Your task to perform on an android device: manage bookmarks in the chrome app Image 0: 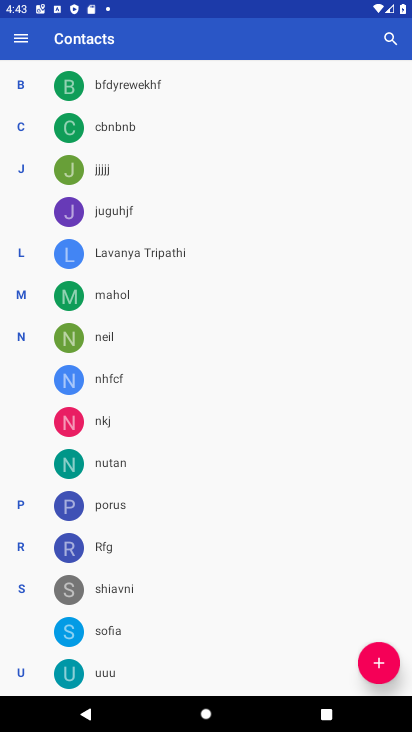
Step 0: press home button
Your task to perform on an android device: manage bookmarks in the chrome app Image 1: 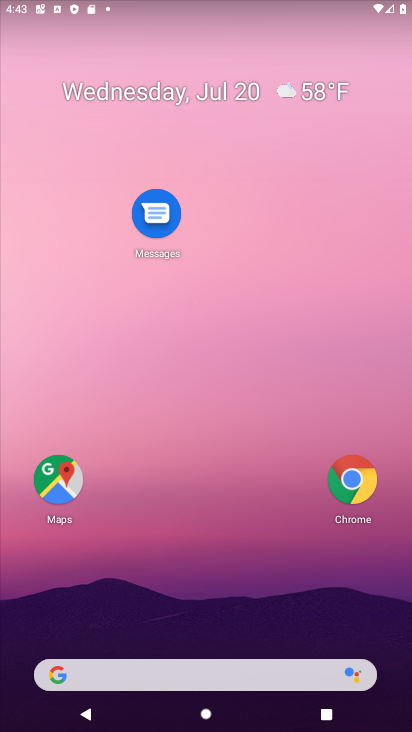
Step 1: click (353, 479)
Your task to perform on an android device: manage bookmarks in the chrome app Image 2: 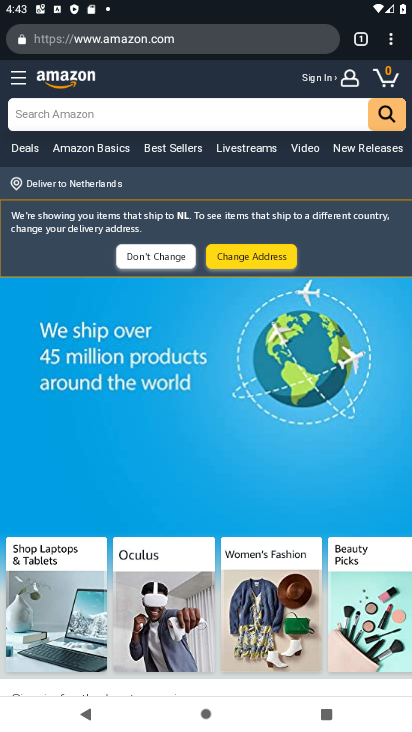
Step 2: click (389, 43)
Your task to perform on an android device: manage bookmarks in the chrome app Image 3: 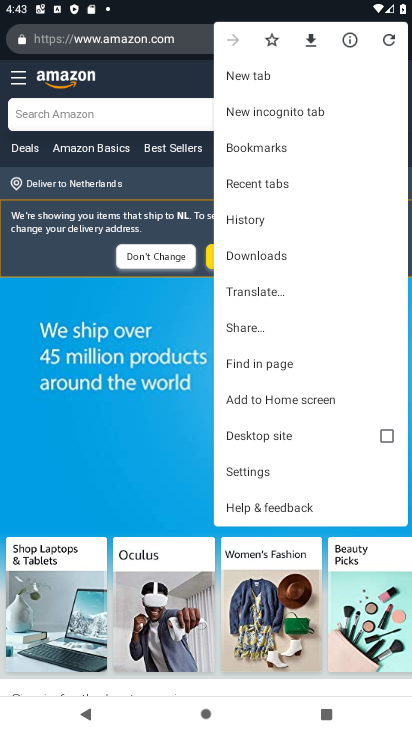
Step 3: click (242, 476)
Your task to perform on an android device: manage bookmarks in the chrome app Image 4: 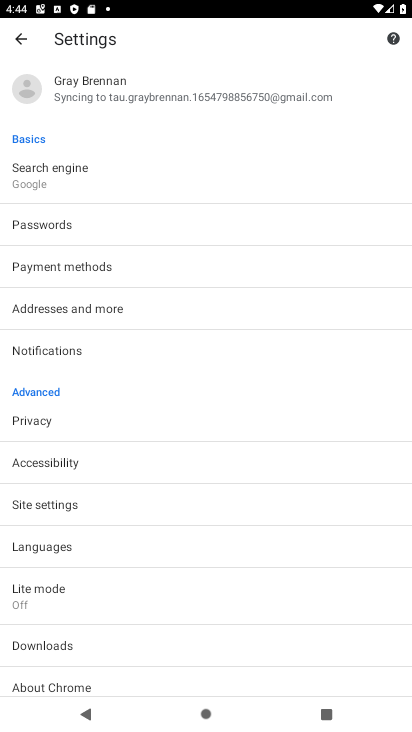
Step 4: click (62, 508)
Your task to perform on an android device: manage bookmarks in the chrome app Image 5: 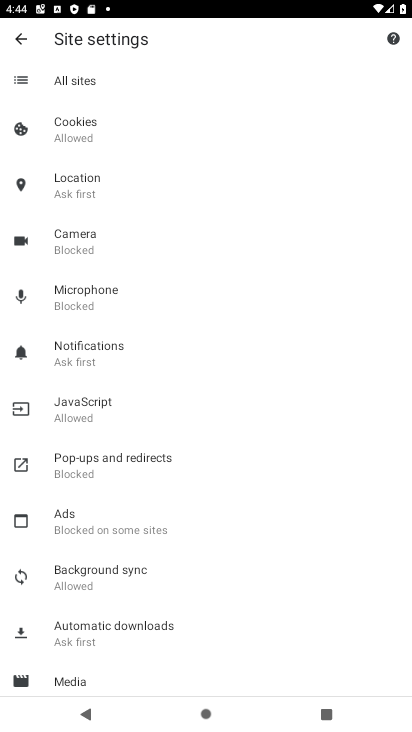
Step 5: drag from (108, 633) to (135, 387)
Your task to perform on an android device: manage bookmarks in the chrome app Image 6: 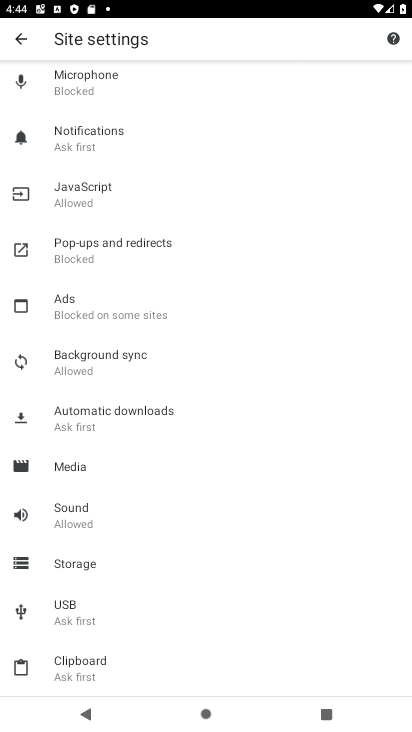
Step 6: drag from (137, 231) to (134, 529)
Your task to perform on an android device: manage bookmarks in the chrome app Image 7: 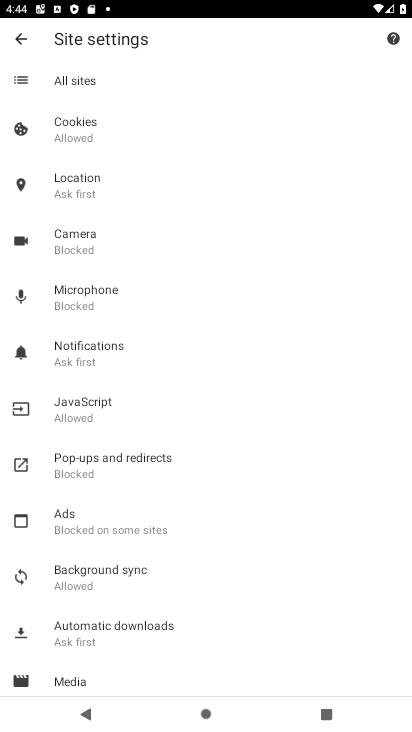
Step 7: drag from (104, 526) to (131, 322)
Your task to perform on an android device: manage bookmarks in the chrome app Image 8: 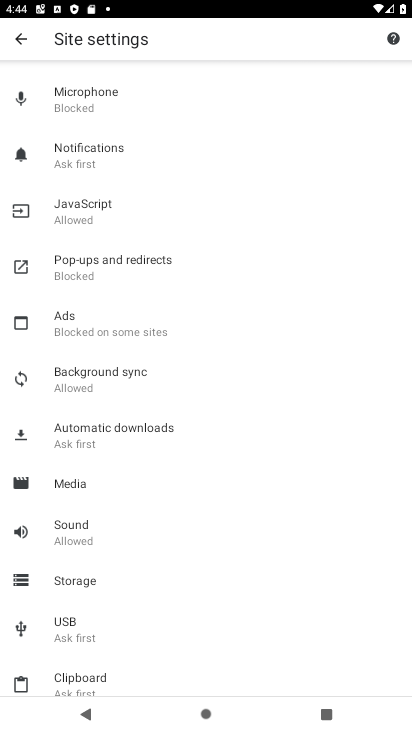
Step 8: drag from (134, 435) to (124, 624)
Your task to perform on an android device: manage bookmarks in the chrome app Image 9: 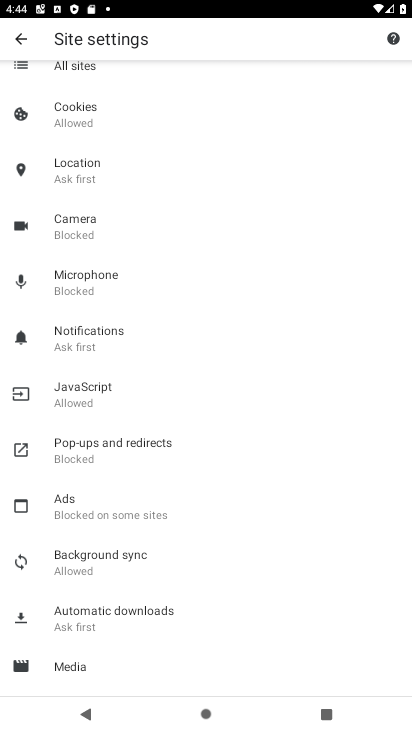
Step 9: click (17, 28)
Your task to perform on an android device: manage bookmarks in the chrome app Image 10: 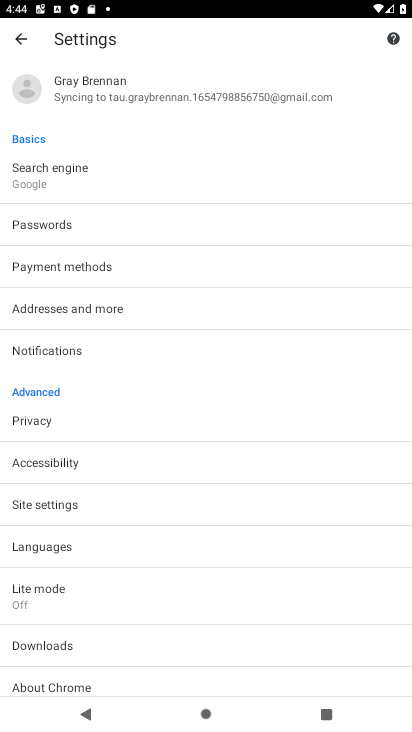
Step 10: click (17, 36)
Your task to perform on an android device: manage bookmarks in the chrome app Image 11: 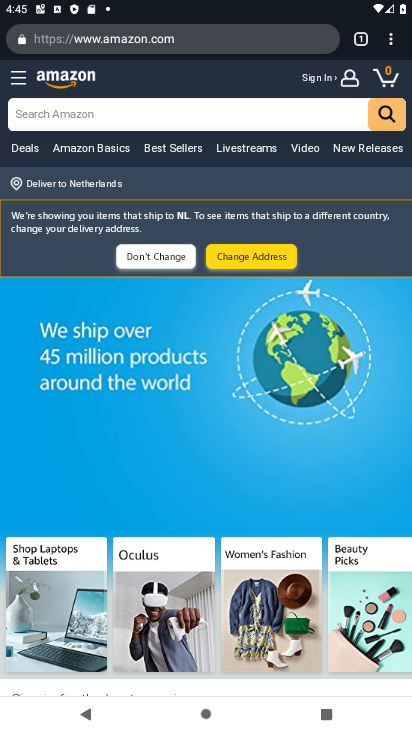
Step 11: click (387, 39)
Your task to perform on an android device: manage bookmarks in the chrome app Image 12: 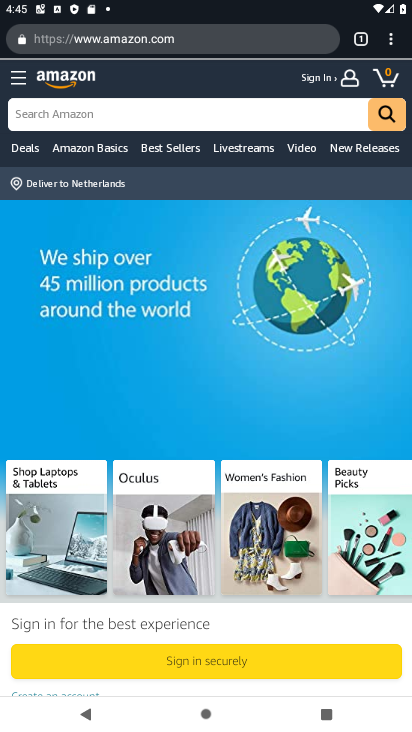
Step 12: click (397, 39)
Your task to perform on an android device: manage bookmarks in the chrome app Image 13: 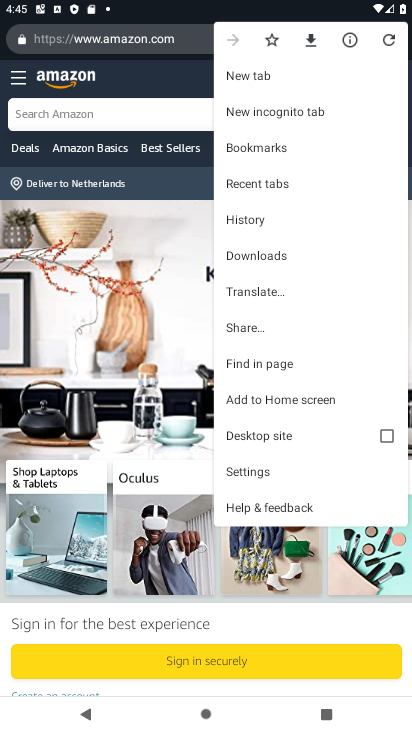
Step 13: click (260, 138)
Your task to perform on an android device: manage bookmarks in the chrome app Image 14: 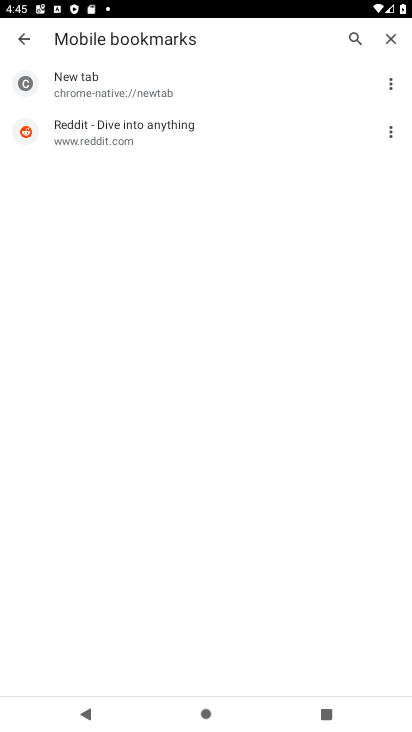
Step 14: click (392, 132)
Your task to perform on an android device: manage bookmarks in the chrome app Image 15: 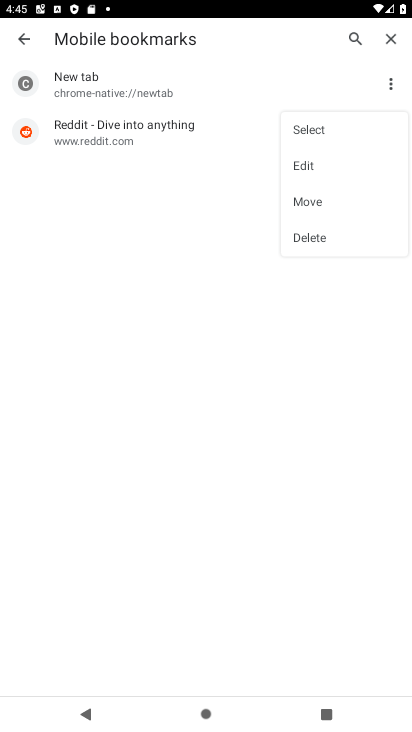
Step 15: click (330, 247)
Your task to perform on an android device: manage bookmarks in the chrome app Image 16: 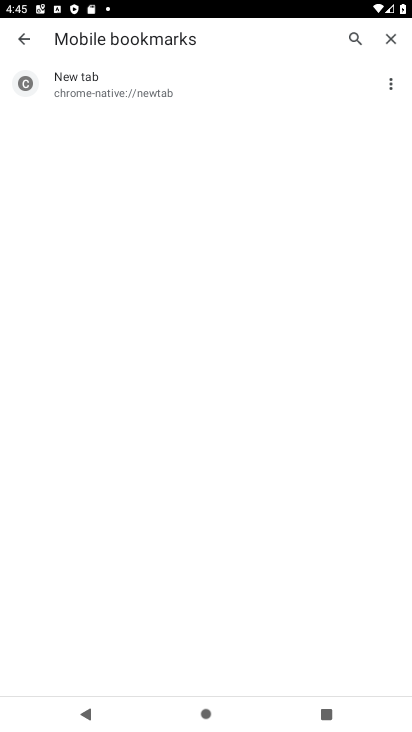
Step 16: task complete